Your task to perform on an android device: turn off javascript in the chrome app Image 0: 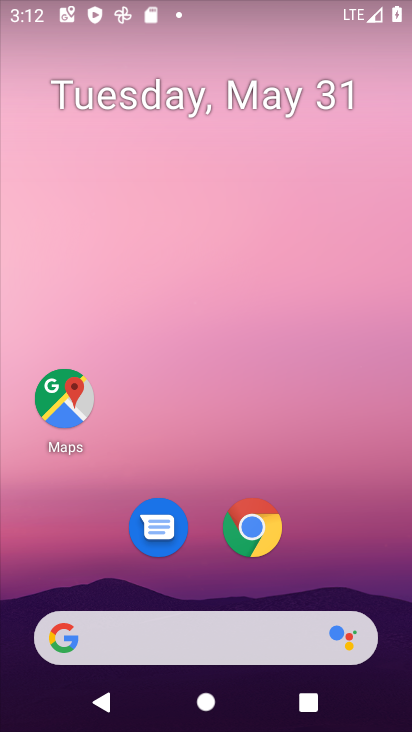
Step 0: drag from (390, 582) to (371, 120)
Your task to perform on an android device: turn off javascript in the chrome app Image 1: 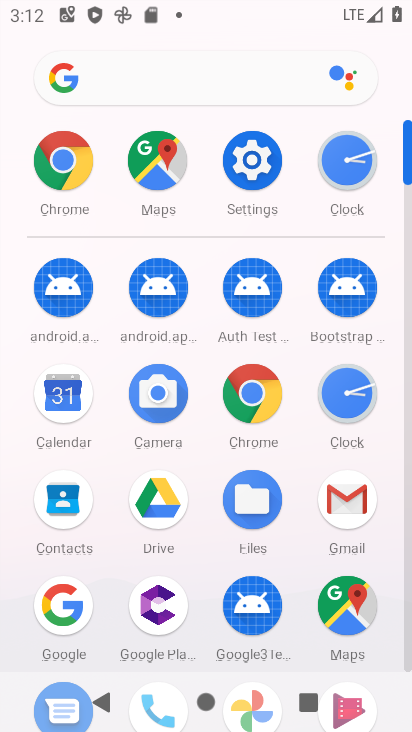
Step 1: click (254, 407)
Your task to perform on an android device: turn off javascript in the chrome app Image 2: 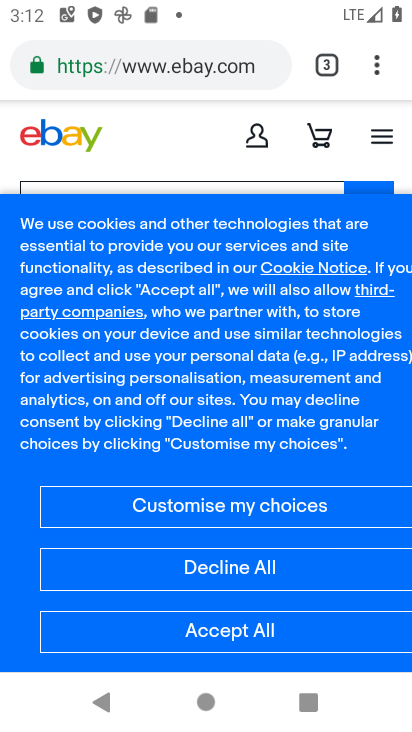
Step 2: drag from (379, 50) to (143, 563)
Your task to perform on an android device: turn off javascript in the chrome app Image 3: 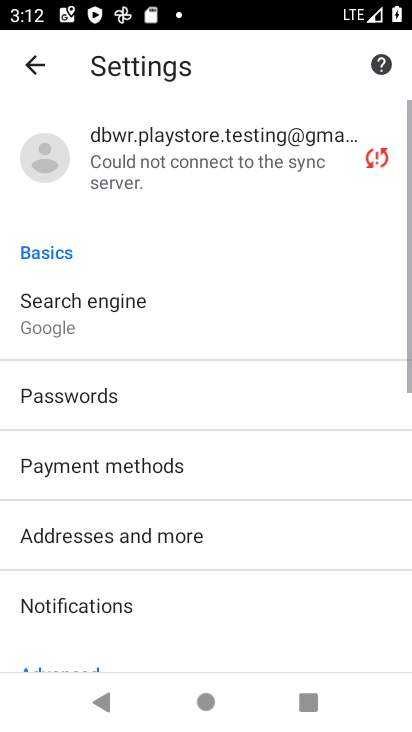
Step 3: drag from (116, 598) to (151, 218)
Your task to perform on an android device: turn off javascript in the chrome app Image 4: 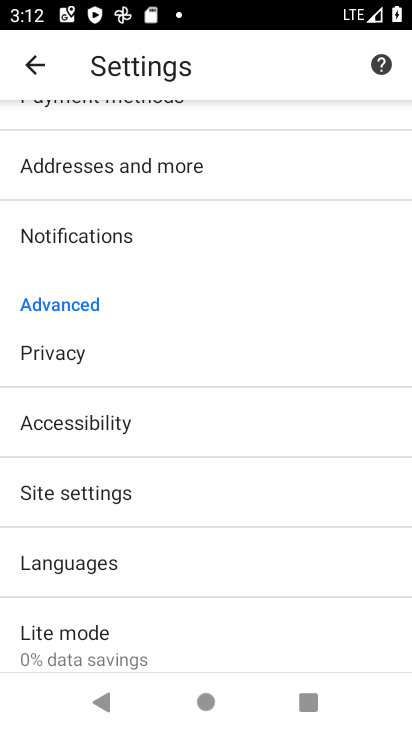
Step 4: click (208, 485)
Your task to perform on an android device: turn off javascript in the chrome app Image 5: 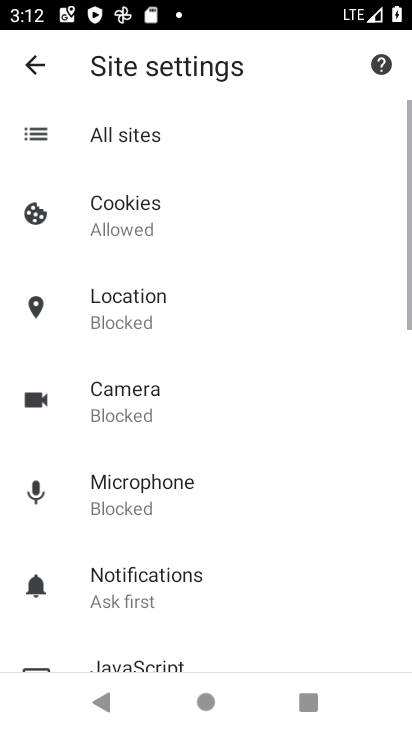
Step 5: drag from (212, 593) to (194, 204)
Your task to perform on an android device: turn off javascript in the chrome app Image 6: 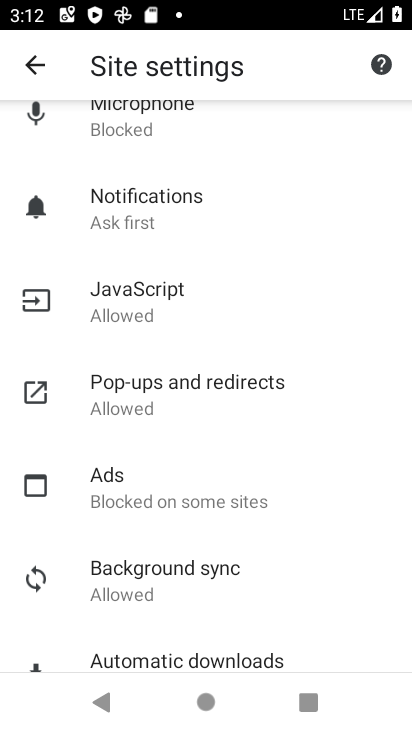
Step 6: click (131, 302)
Your task to perform on an android device: turn off javascript in the chrome app Image 7: 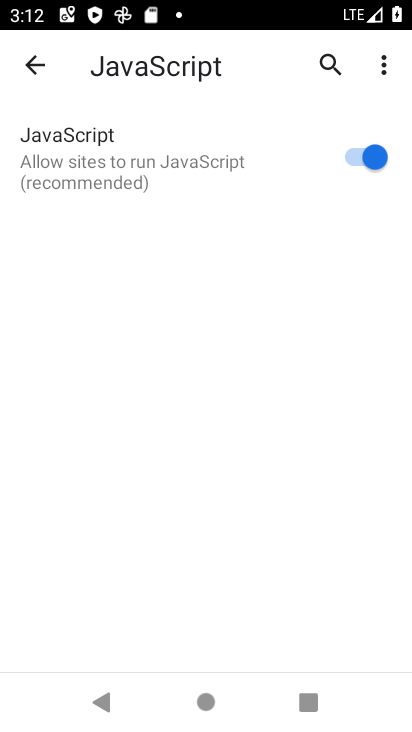
Step 7: click (364, 168)
Your task to perform on an android device: turn off javascript in the chrome app Image 8: 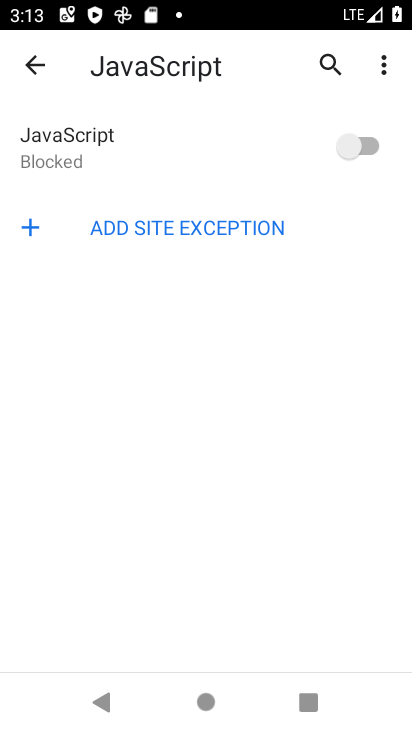
Step 8: task complete